Your task to perform on an android device: Open the map Image 0: 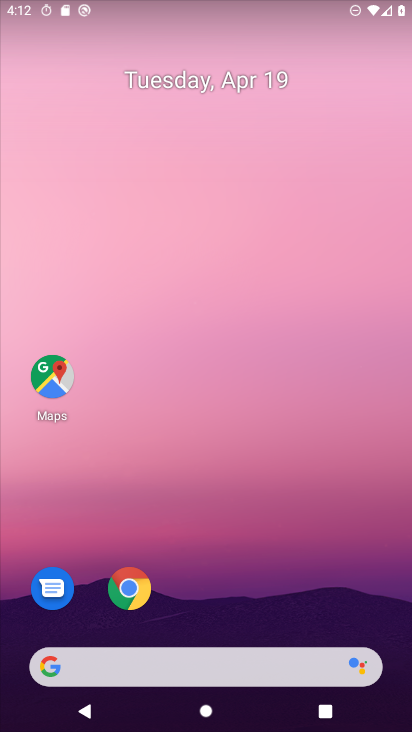
Step 0: click (57, 376)
Your task to perform on an android device: Open the map Image 1: 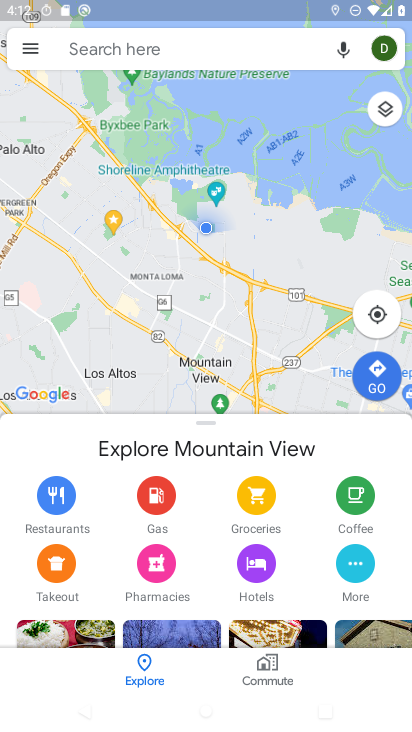
Step 1: task complete